Your task to perform on an android device: Open settings Image 0: 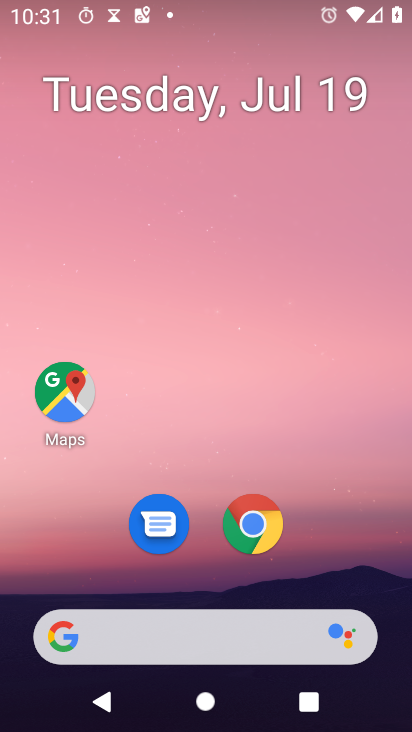
Step 0: press home button
Your task to perform on an android device: Open settings Image 1: 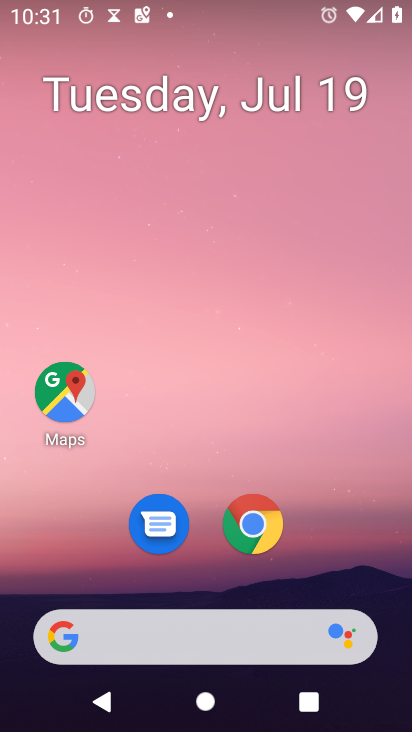
Step 1: drag from (180, 626) to (308, 150)
Your task to perform on an android device: Open settings Image 2: 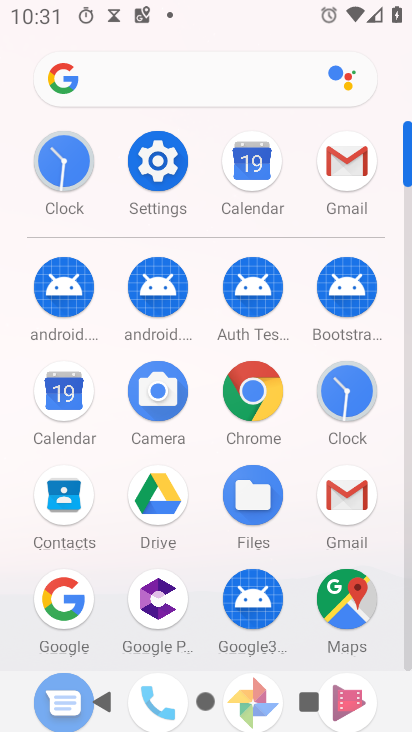
Step 2: click (163, 164)
Your task to perform on an android device: Open settings Image 3: 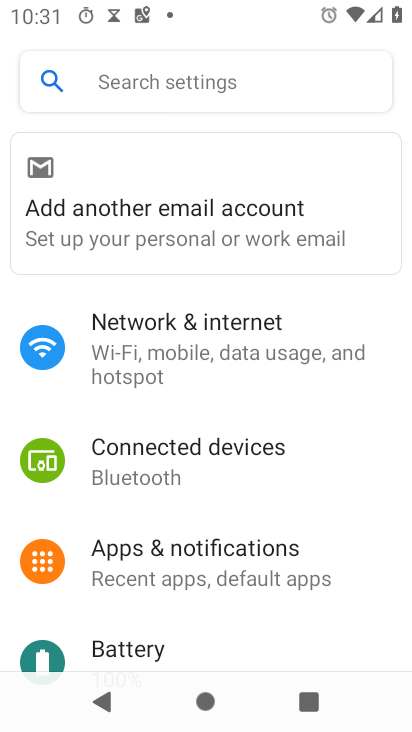
Step 3: task complete